Your task to perform on an android device: move a message to another label in the gmail app Image 0: 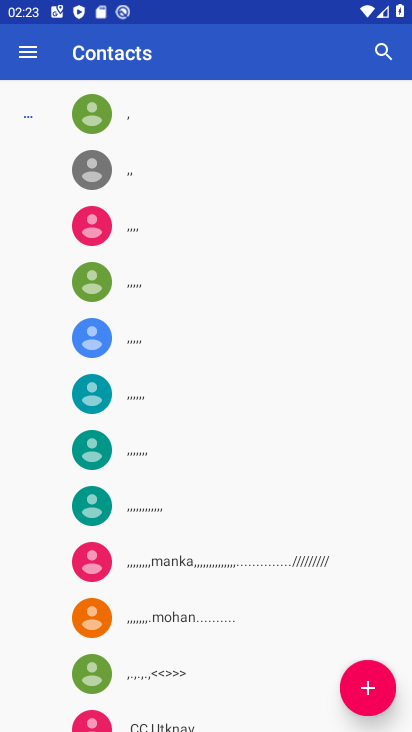
Step 0: press home button
Your task to perform on an android device: move a message to another label in the gmail app Image 1: 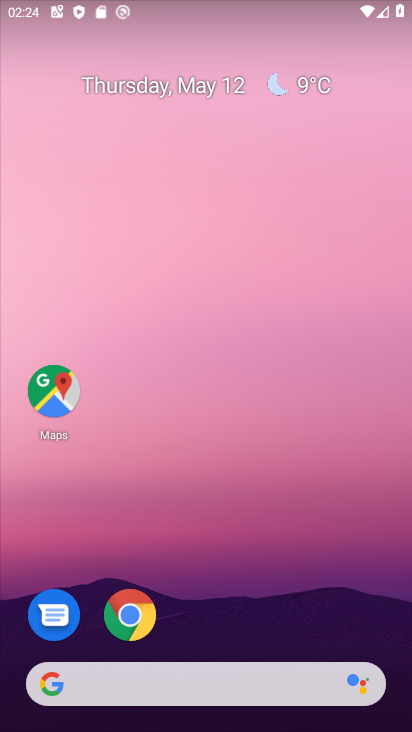
Step 1: drag from (245, 704) to (275, 222)
Your task to perform on an android device: move a message to another label in the gmail app Image 2: 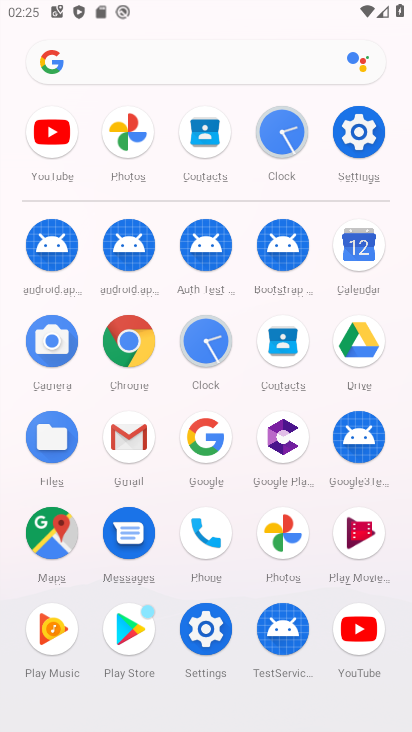
Step 2: click (147, 443)
Your task to perform on an android device: move a message to another label in the gmail app Image 3: 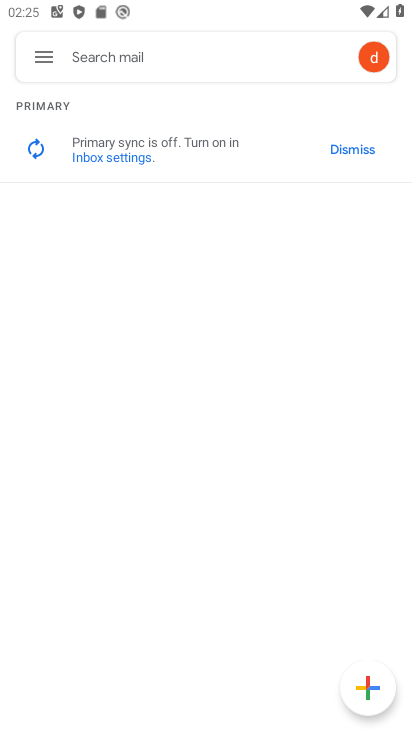
Step 3: click (34, 53)
Your task to perform on an android device: move a message to another label in the gmail app Image 4: 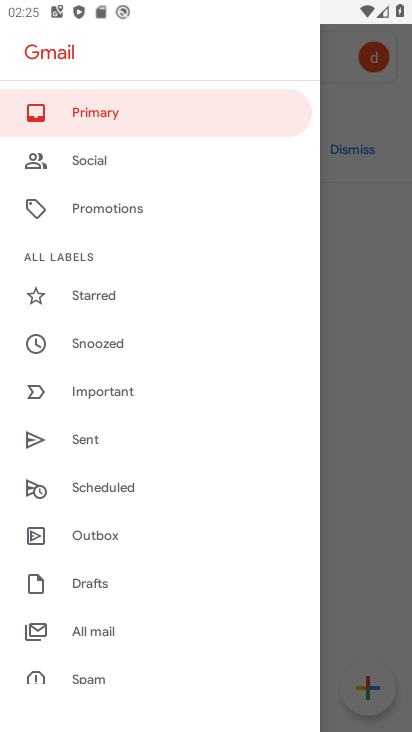
Step 4: click (118, 633)
Your task to perform on an android device: move a message to another label in the gmail app Image 5: 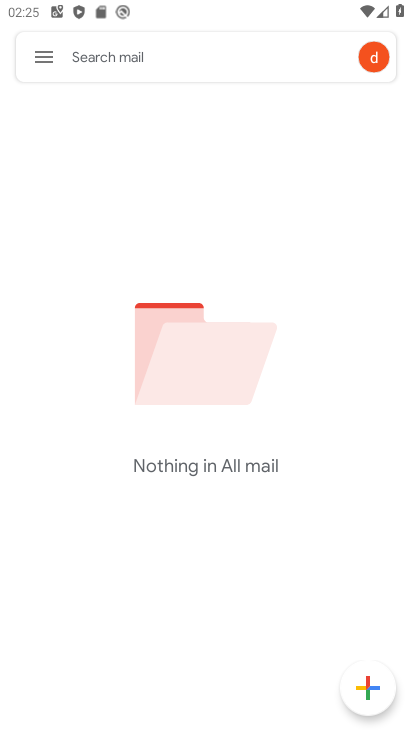
Step 5: task complete